Your task to perform on an android device: change notification settings in the gmail app Image 0: 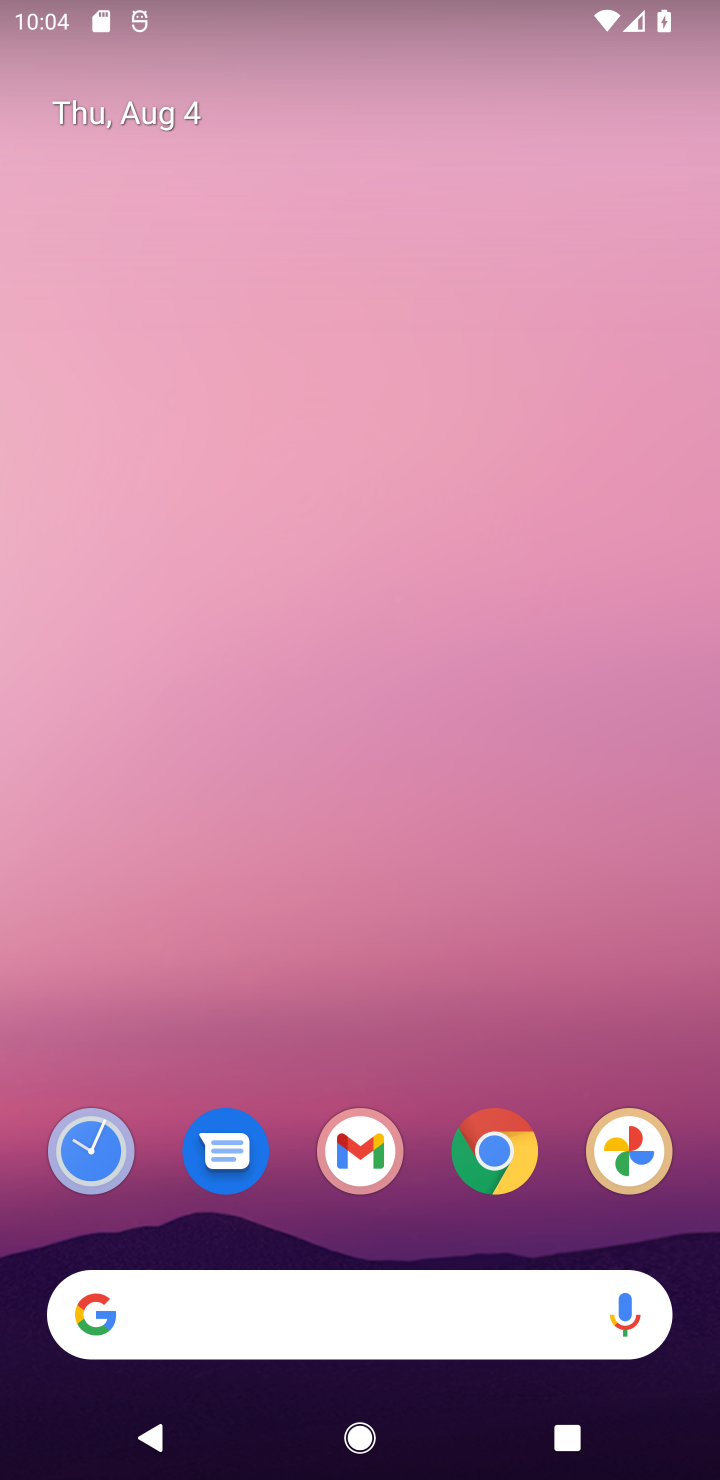
Step 0: press home button
Your task to perform on an android device: change notification settings in the gmail app Image 1: 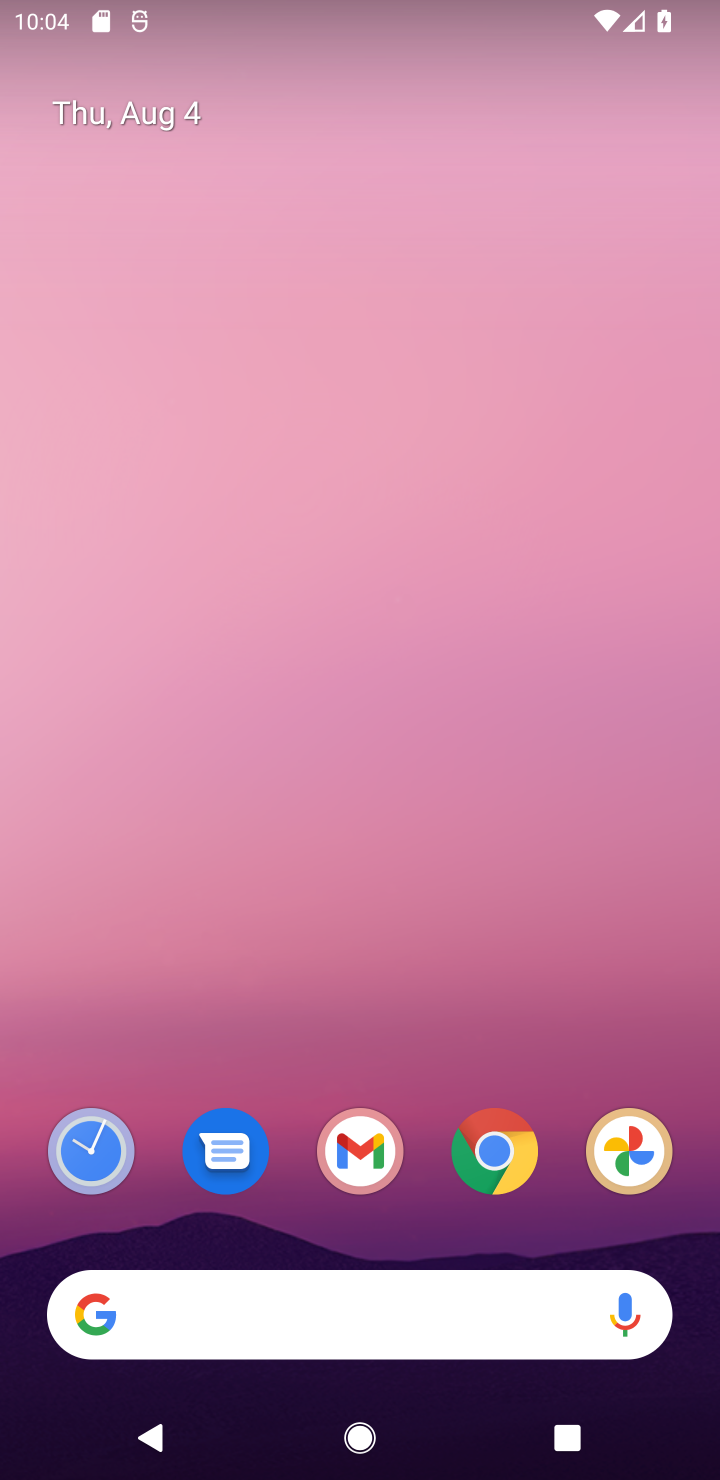
Step 1: click (361, 1168)
Your task to perform on an android device: change notification settings in the gmail app Image 2: 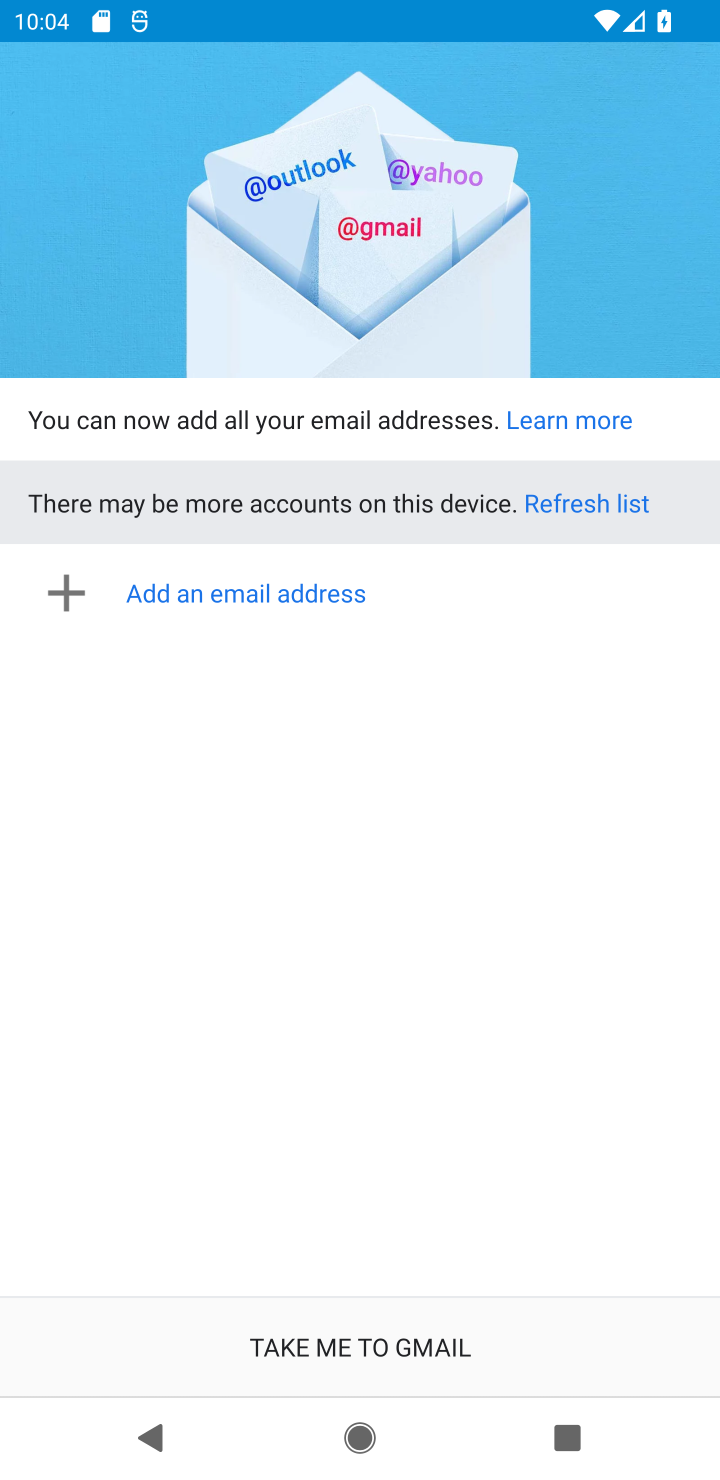
Step 2: click (366, 1334)
Your task to perform on an android device: change notification settings in the gmail app Image 3: 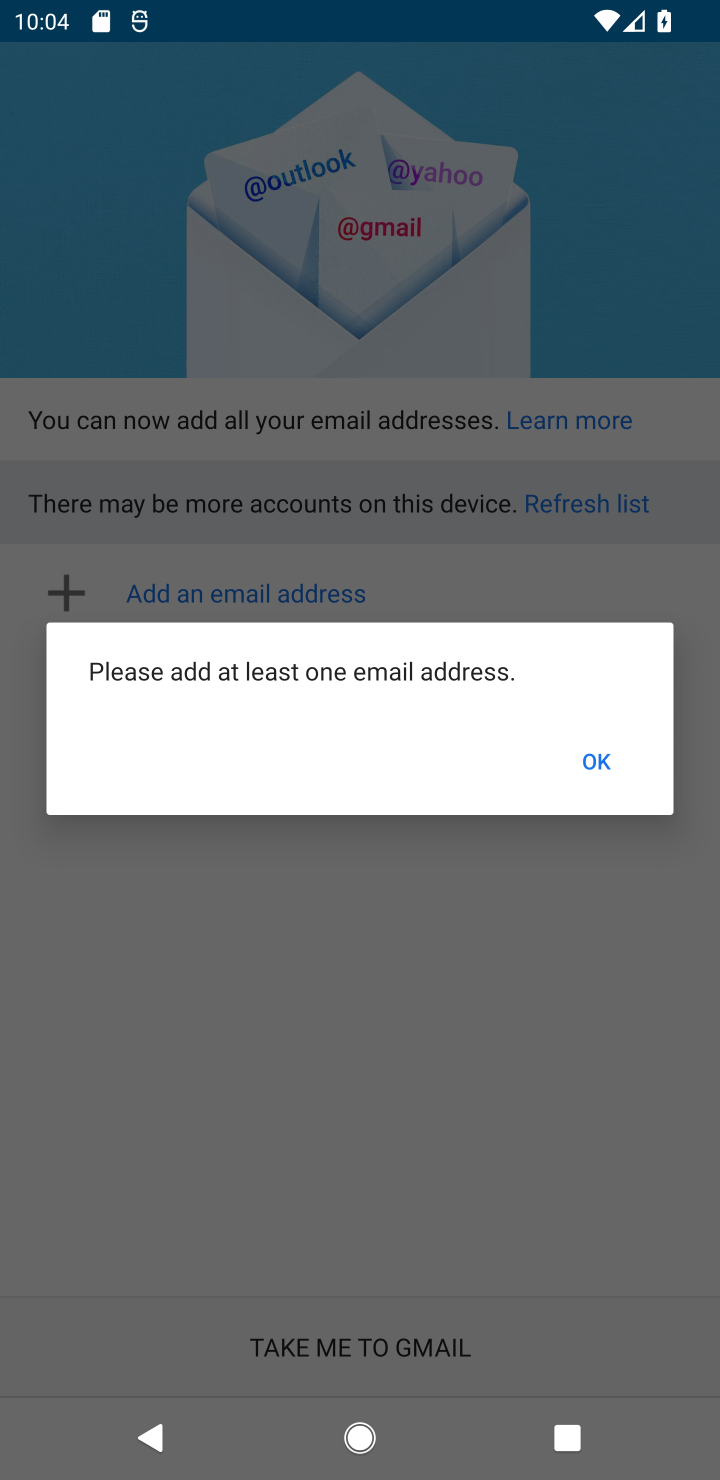
Step 3: click (606, 770)
Your task to perform on an android device: change notification settings in the gmail app Image 4: 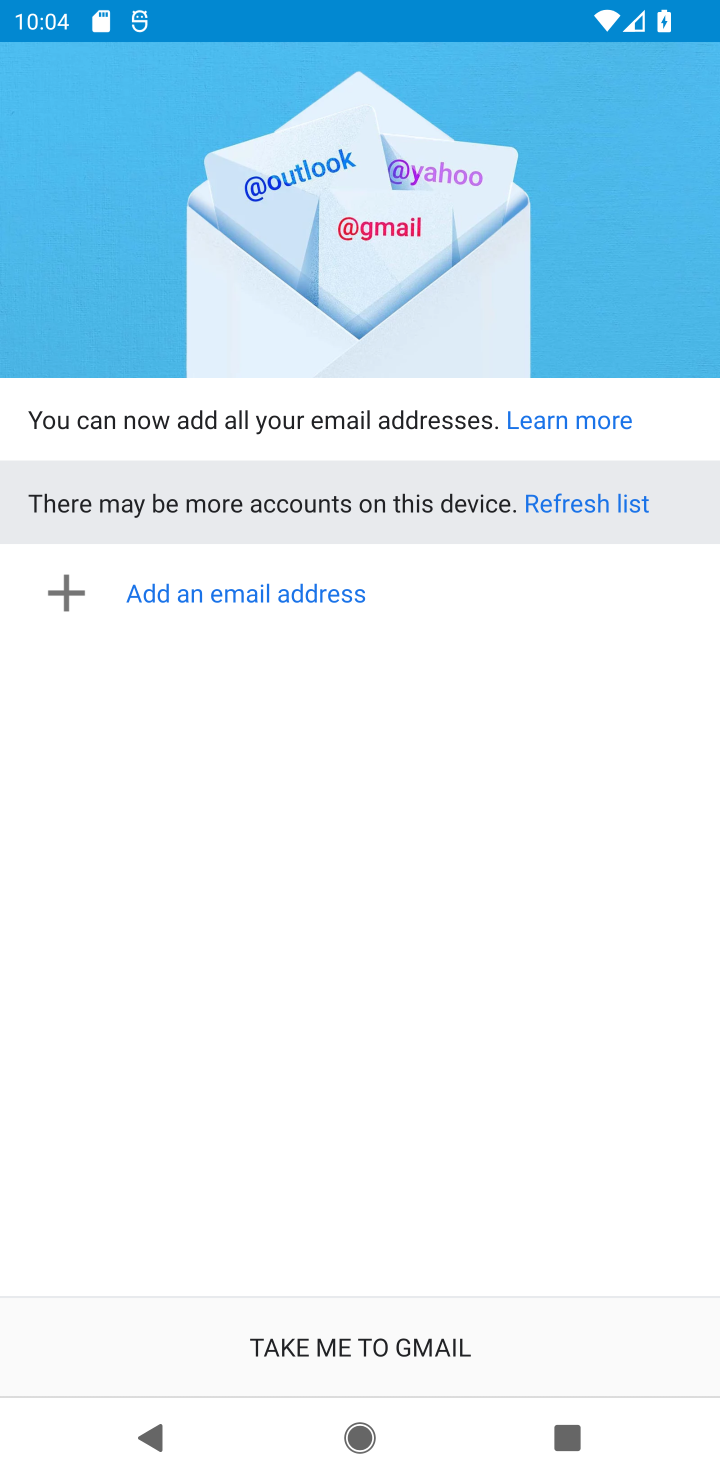
Step 4: click (61, 596)
Your task to perform on an android device: change notification settings in the gmail app Image 5: 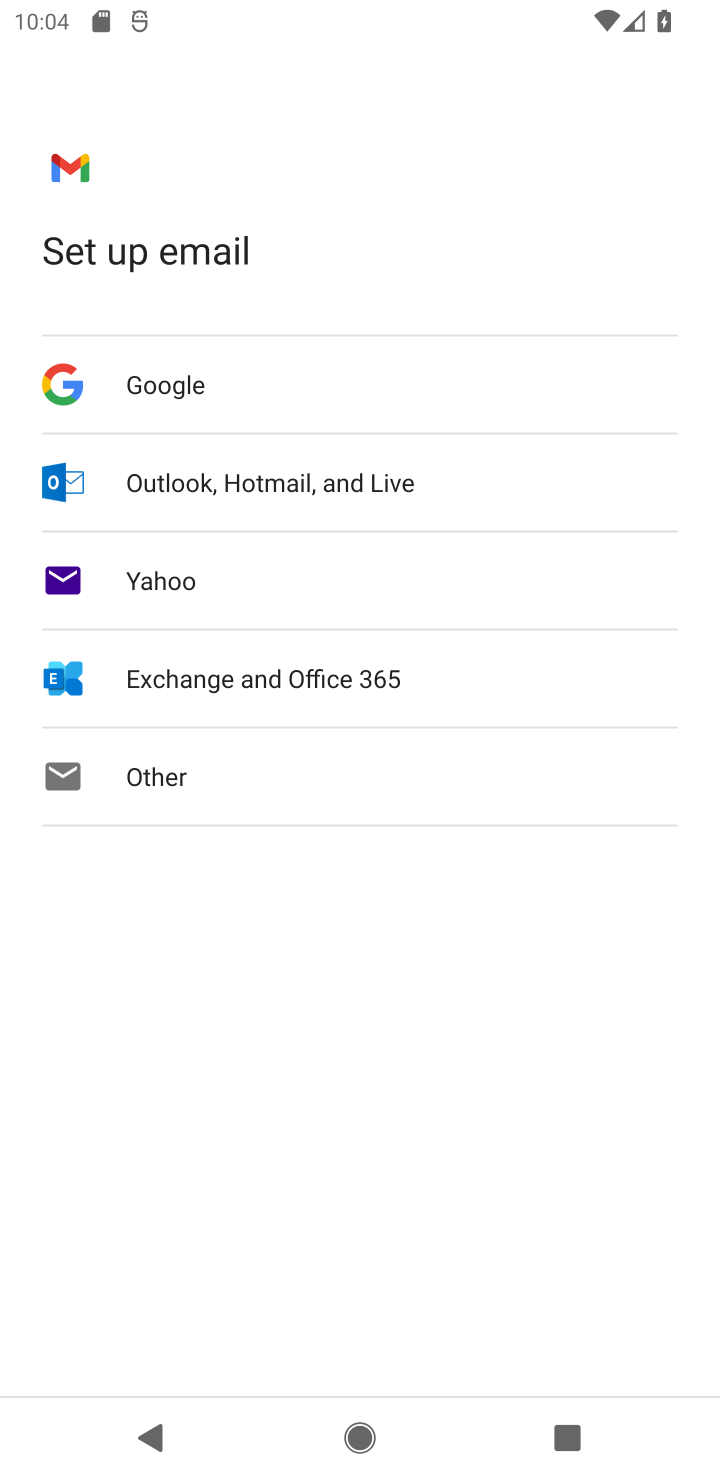
Step 5: click (172, 412)
Your task to perform on an android device: change notification settings in the gmail app Image 6: 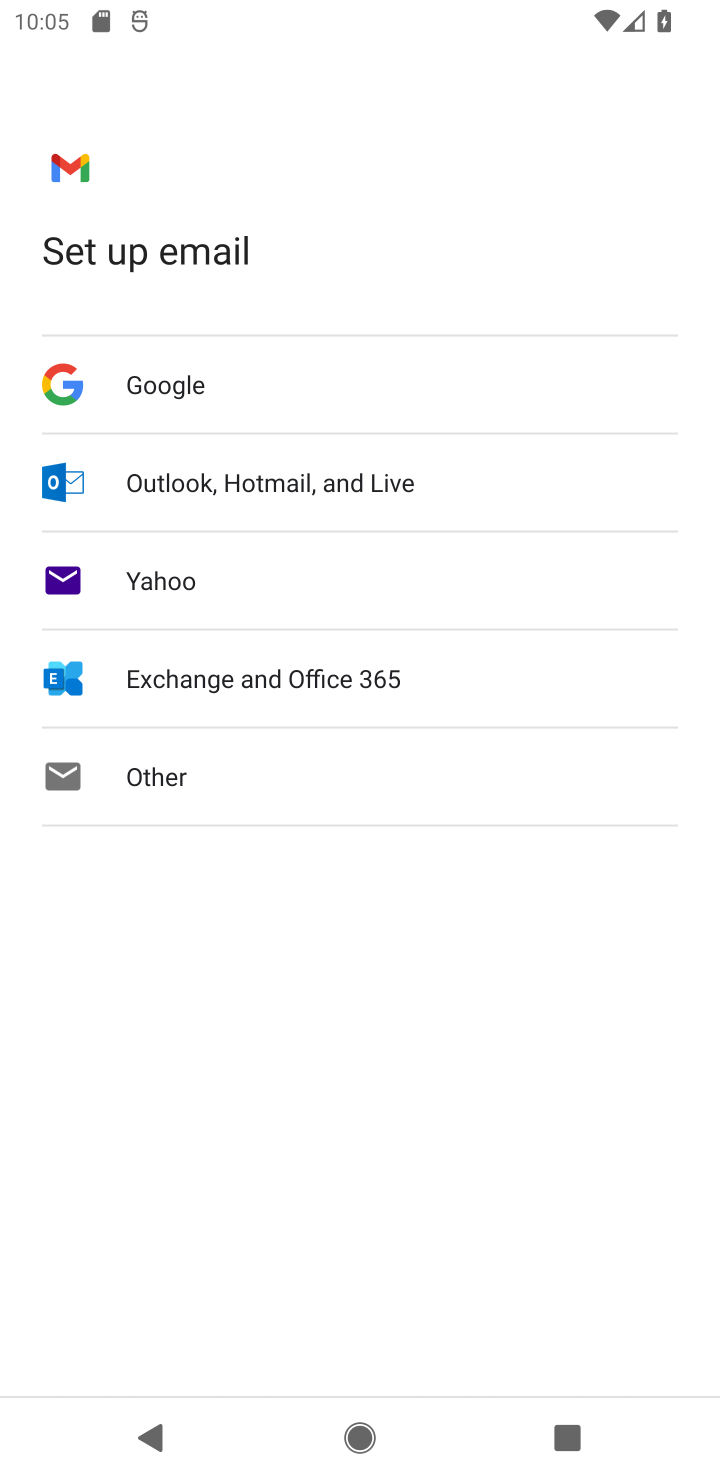
Step 6: click (142, 388)
Your task to perform on an android device: change notification settings in the gmail app Image 7: 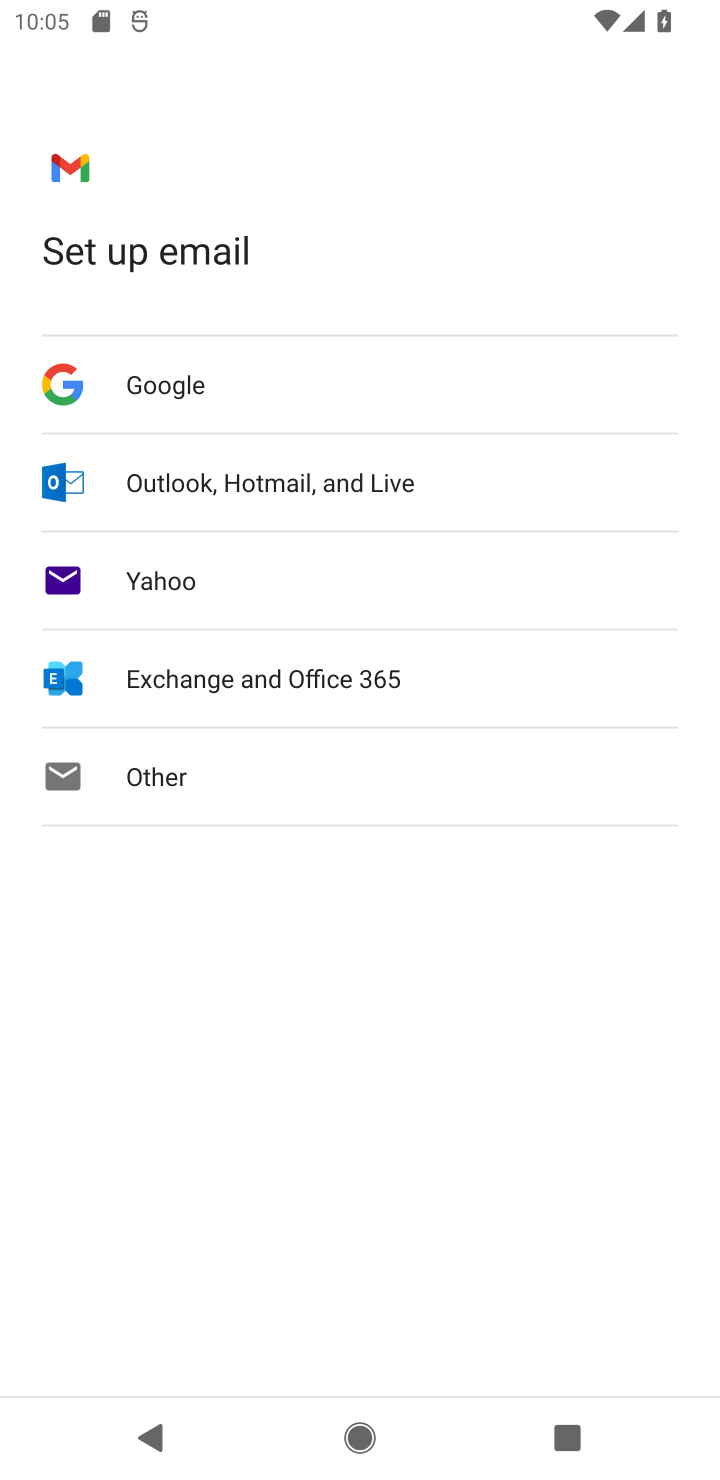
Step 7: click (173, 375)
Your task to perform on an android device: change notification settings in the gmail app Image 8: 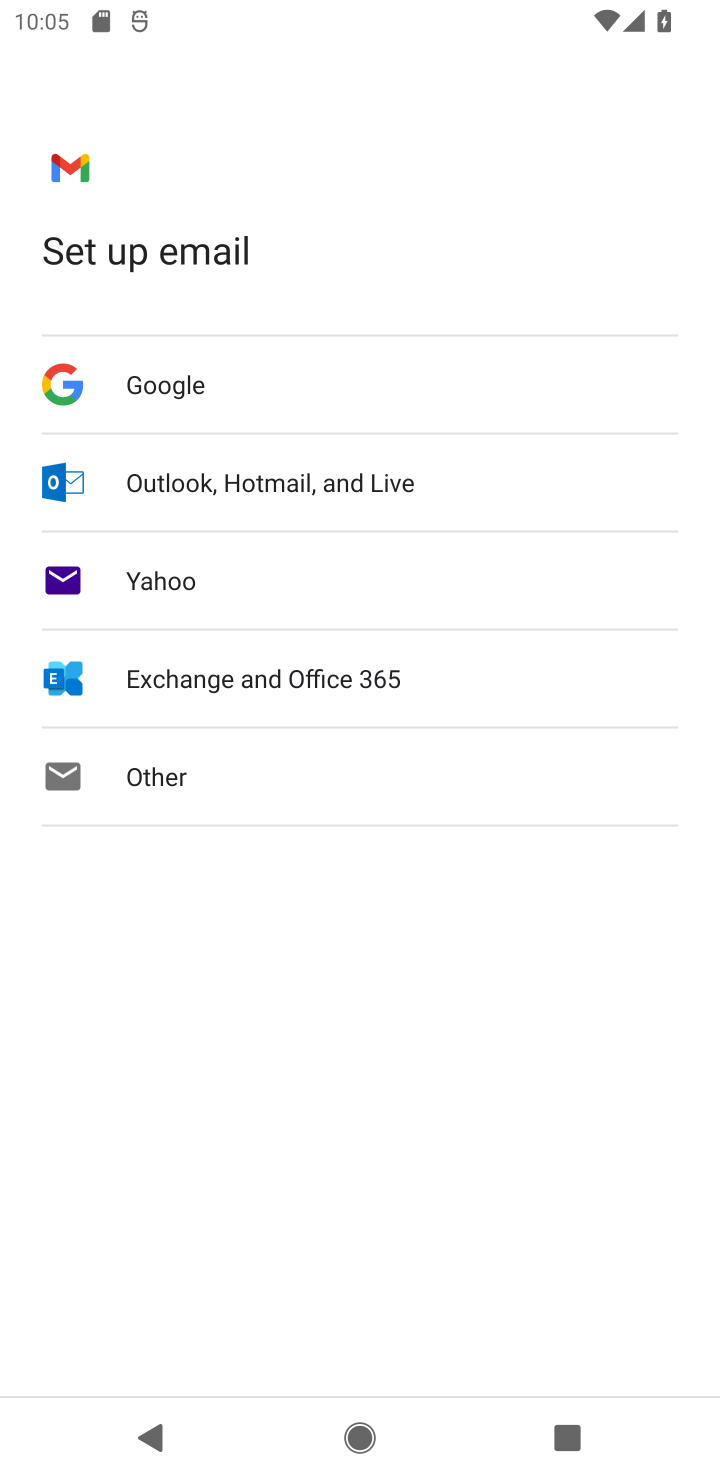
Step 8: click (143, 769)
Your task to perform on an android device: change notification settings in the gmail app Image 9: 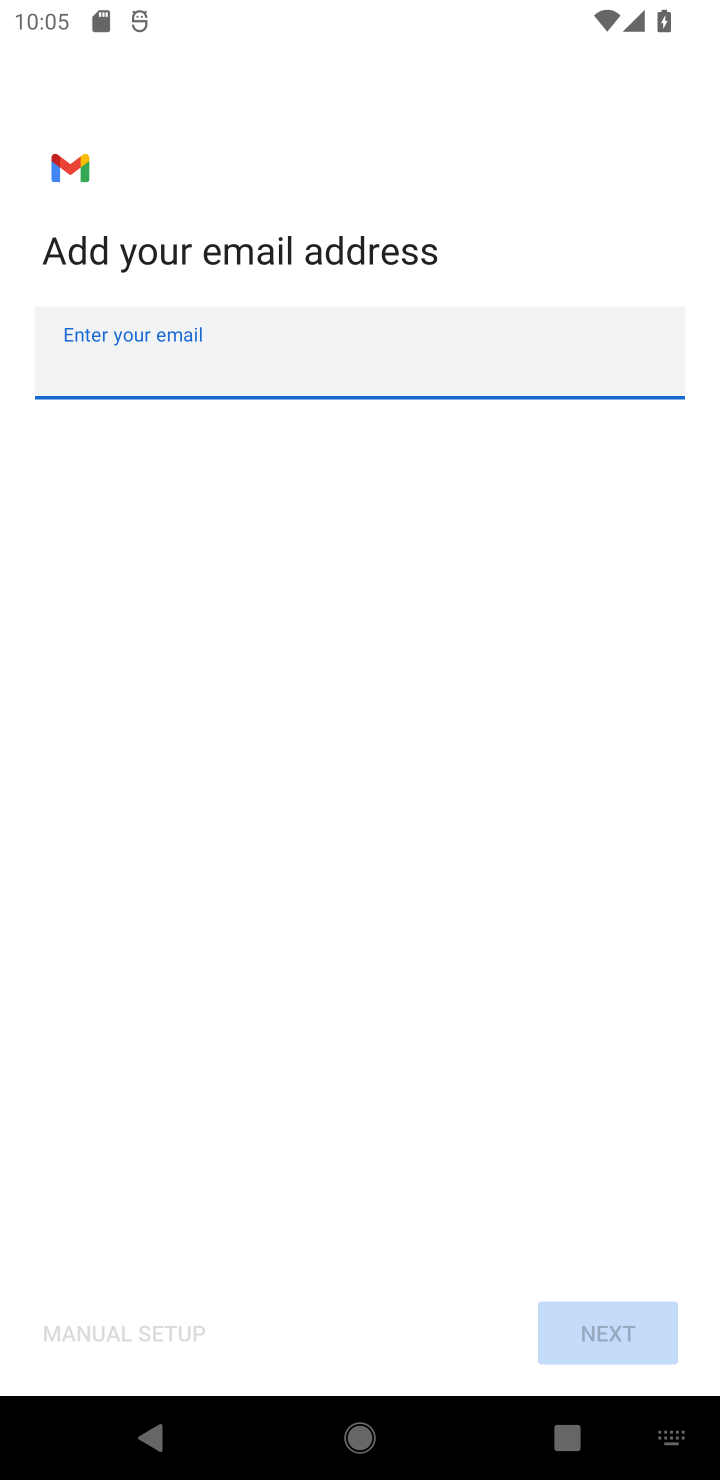
Step 9: task complete